Your task to perform on an android device: Check the news Image 0: 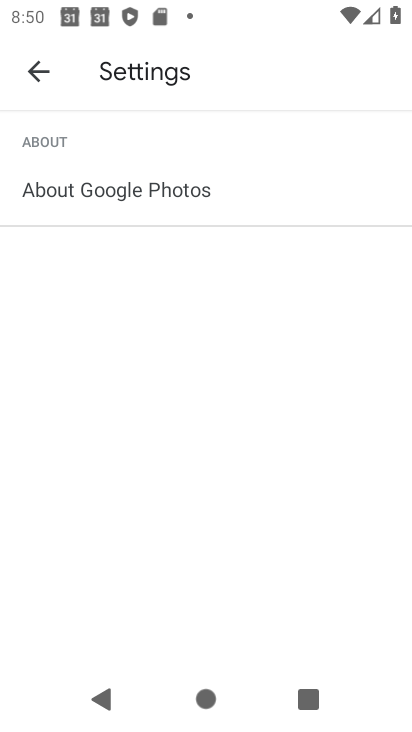
Step 0: press back button
Your task to perform on an android device: Check the news Image 1: 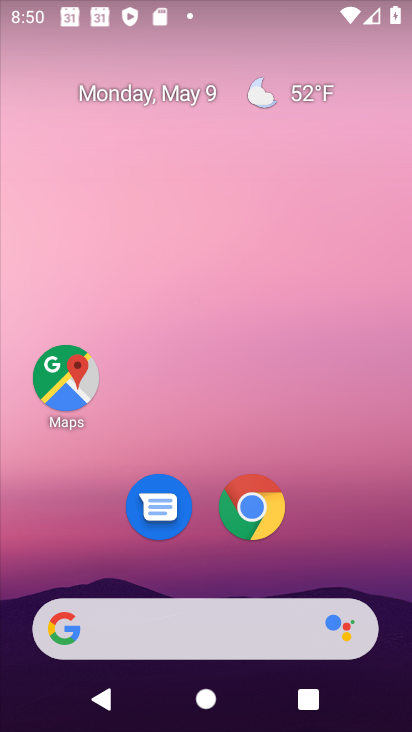
Step 1: drag from (348, 557) to (287, 129)
Your task to perform on an android device: Check the news Image 2: 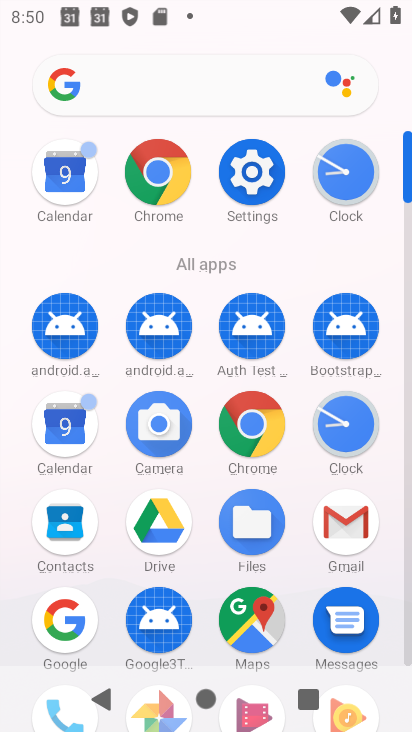
Step 2: click (56, 620)
Your task to perform on an android device: Check the news Image 3: 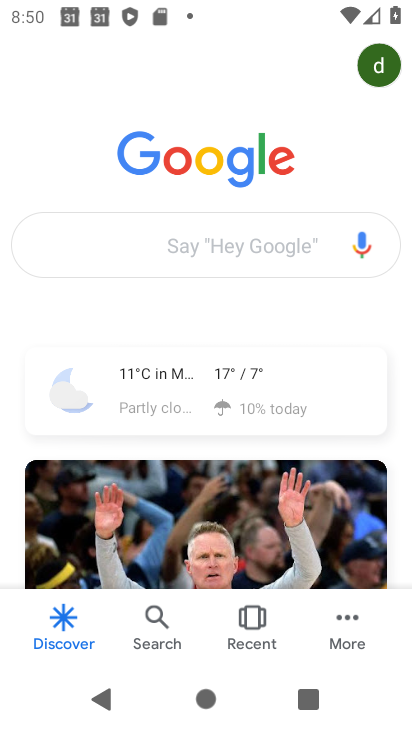
Step 3: click (205, 251)
Your task to perform on an android device: Check the news Image 4: 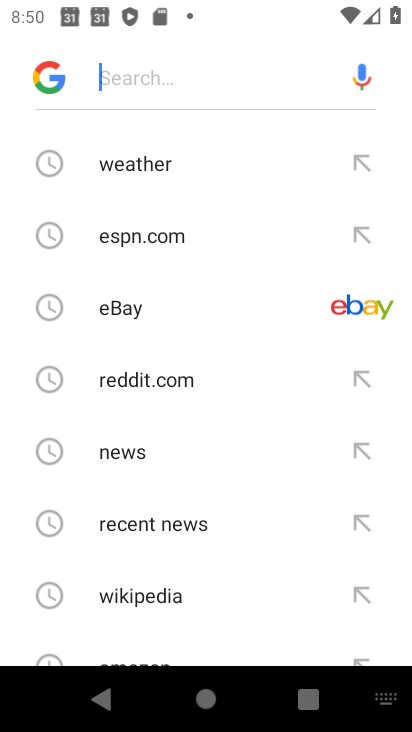
Step 4: click (132, 450)
Your task to perform on an android device: Check the news Image 5: 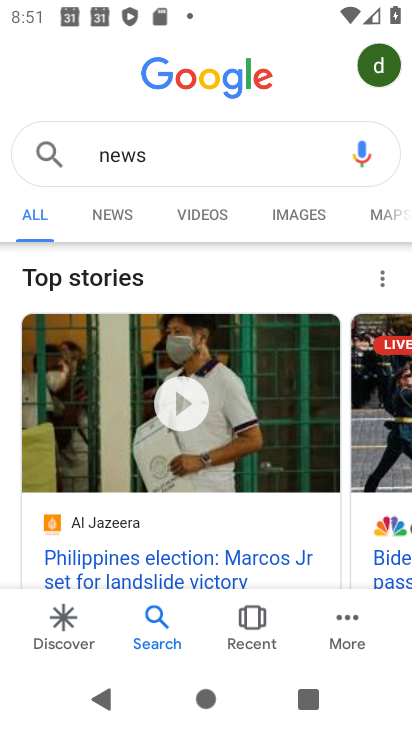
Step 5: task complete